Your task to perform on an android device: turn on location history Image 0: 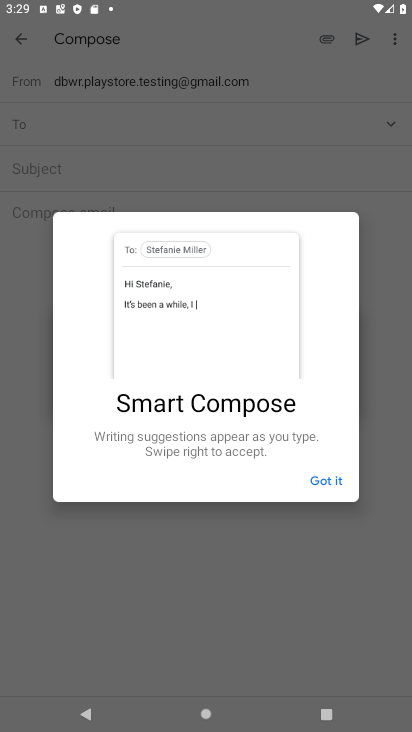
Step 0: press home button
Your task to perform on an android device: turn on location history Image 1: 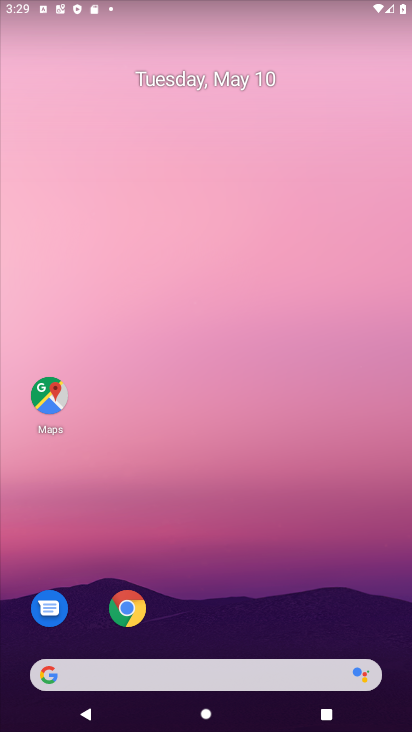
Step 1: click (50, 395)
Your task to perform on an android device: turn on location history Image 2: 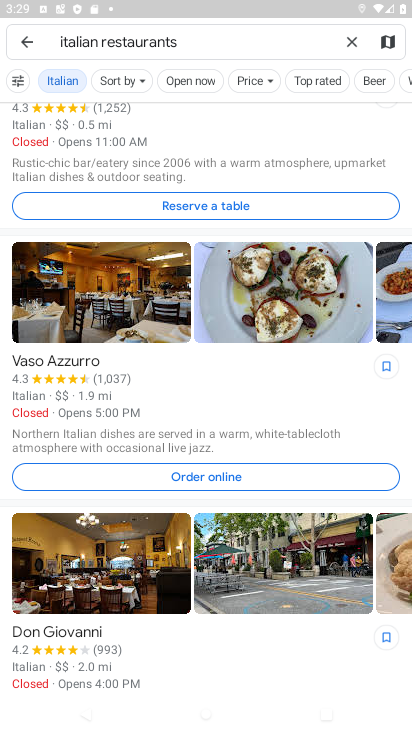
Step 2: click (350, 39)
Your task to perform on an android device: turn on location history Image 3: 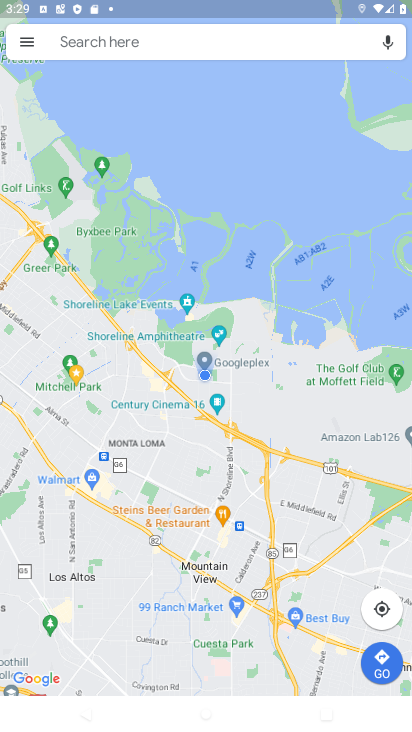
Step 3: click (23, 37)
Your task to perform on an android device: turn on location history Image 4: 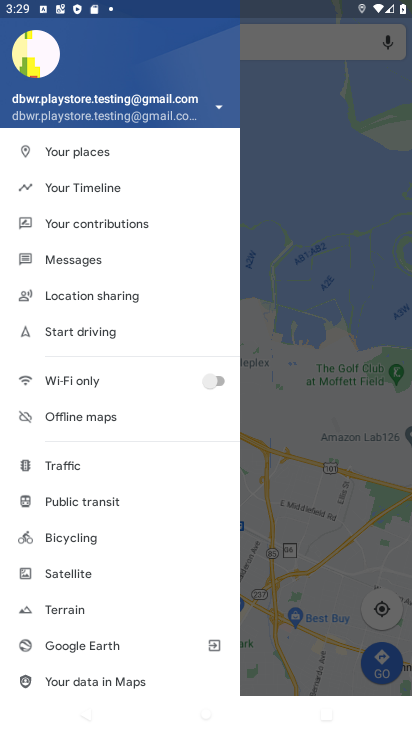
Step 4: drag from (177, 639) to (185, 283)
Your task to perform on an android device: turn on location history Image 5: 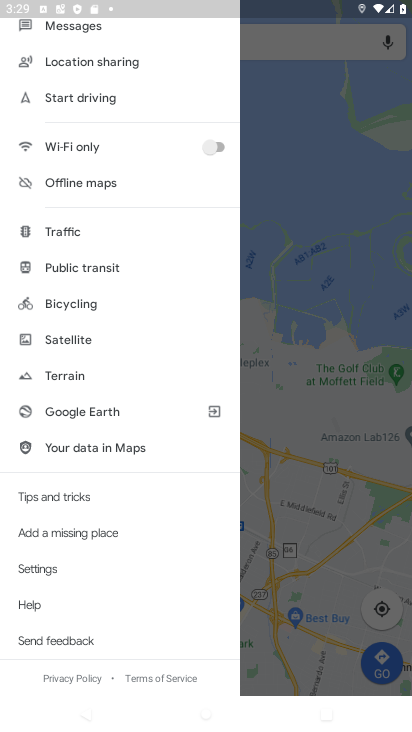
Step 5: click (32, 568)
Your task to perform on an android device: turn on location history Image 6: 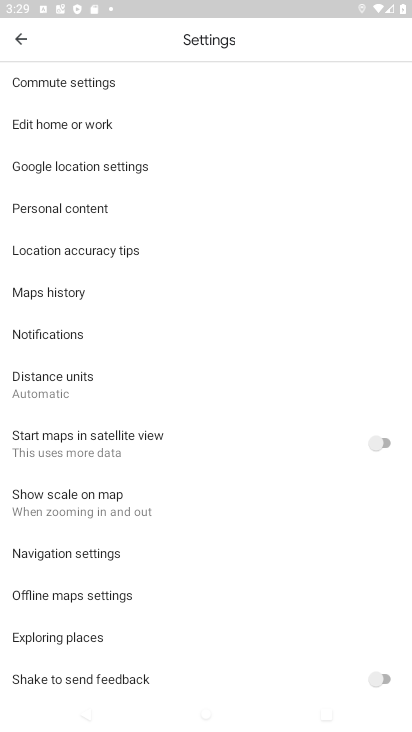
Step 6: click (60, 203)
Your task to perform on an android device: turn on location history Image 7: 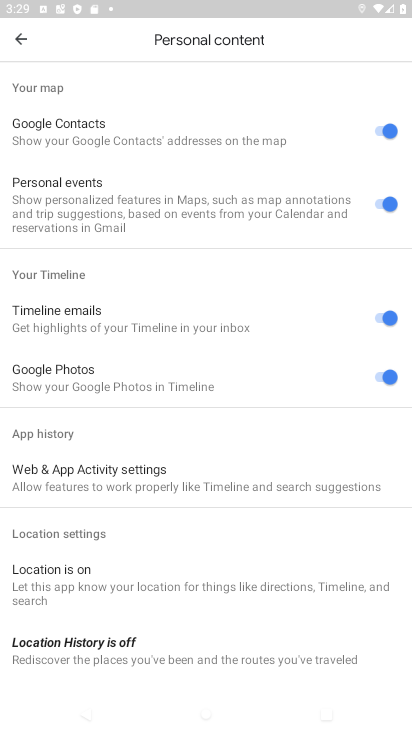
Step 7: drag from (224, 633) to (263, 212)
Your task to perform on an android device: turn on location history Image 8: 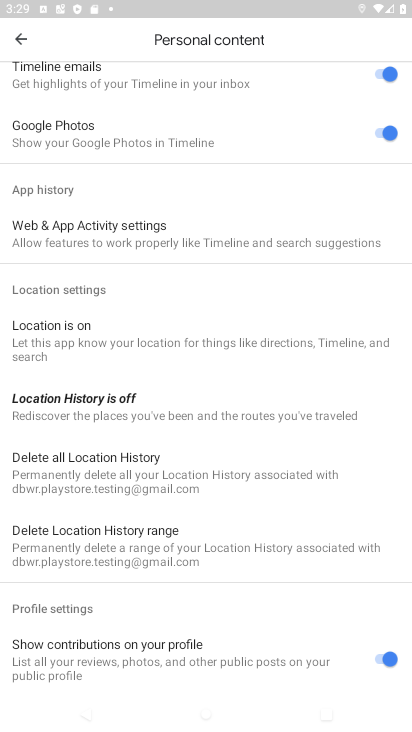
Step 8: click (68, 406)
Your task to perform on an android device: turn on location history Image 9: 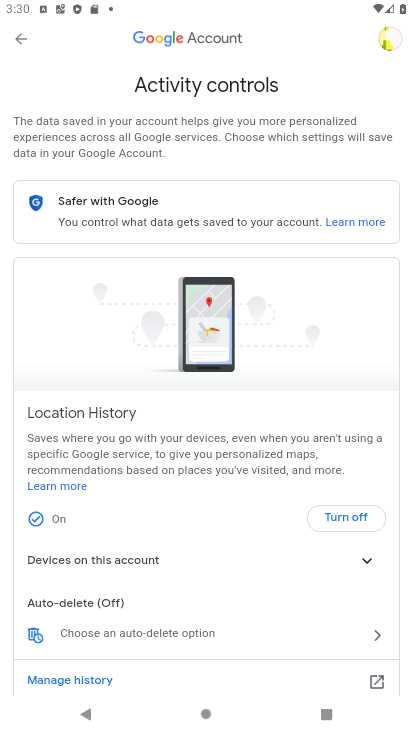
Step 9: task complete